Your task to perform on an android device: Go to ESPN.com Image 0: 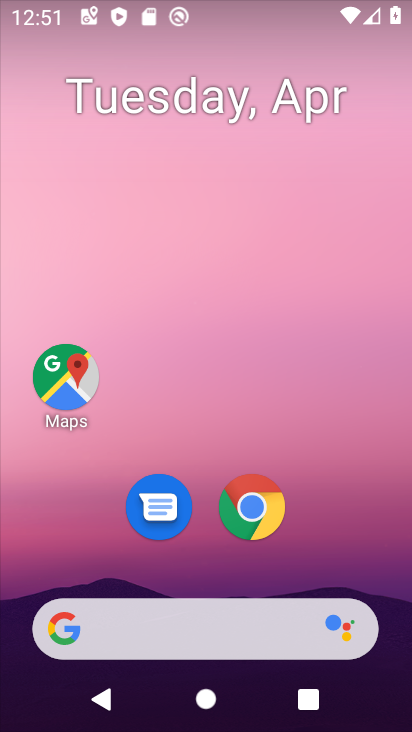
Step 0: click (254, 501)
Your task to perform on an android device: Go to ESPN.com Image 1: 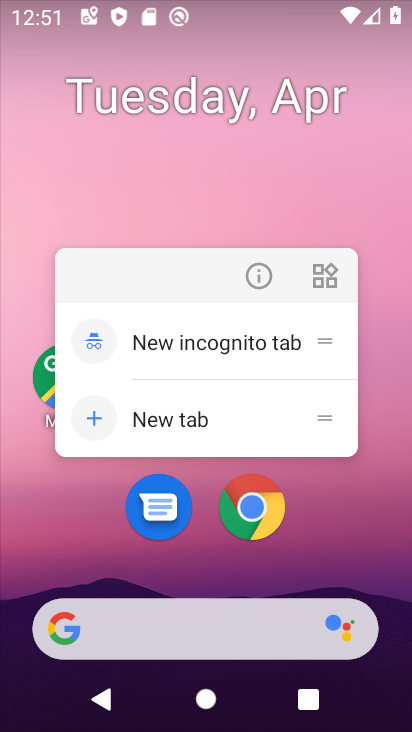
Step 1: click (253, 480)
Your task to perform on an android device: Go to ESPN.com Image 2: 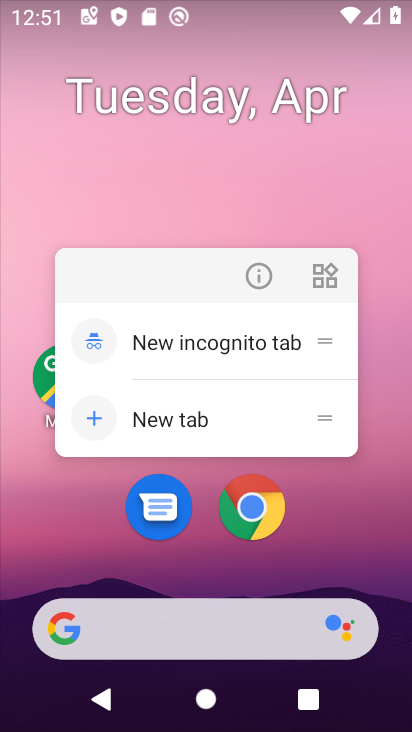
Step 2: click (239, 510)
Your task to perform on an android device: Go to ESPN.com Image 3: 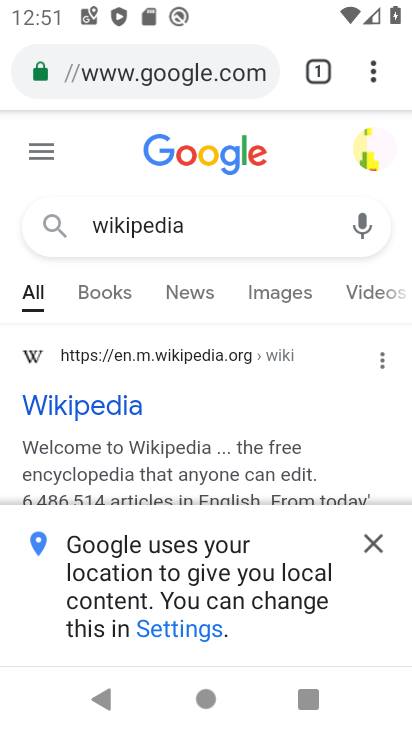
Step 3: click (209, 77)
Your task to perform on an android device: Go to ESPN.com Image 4: 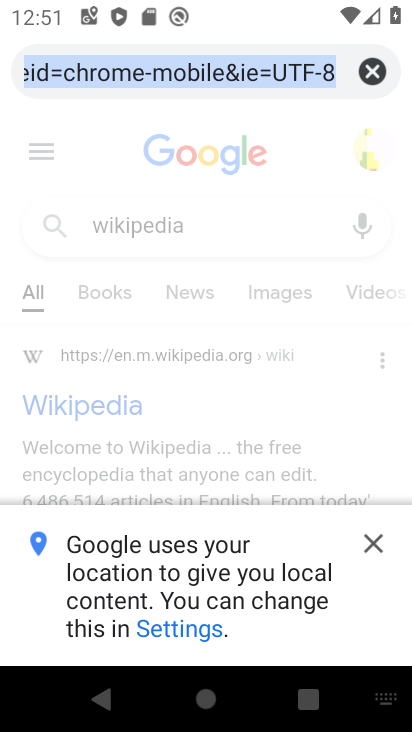
Step 4: type "ESPN.com"
Your task to perform on an android device: Go to ESPN.com Image 5: 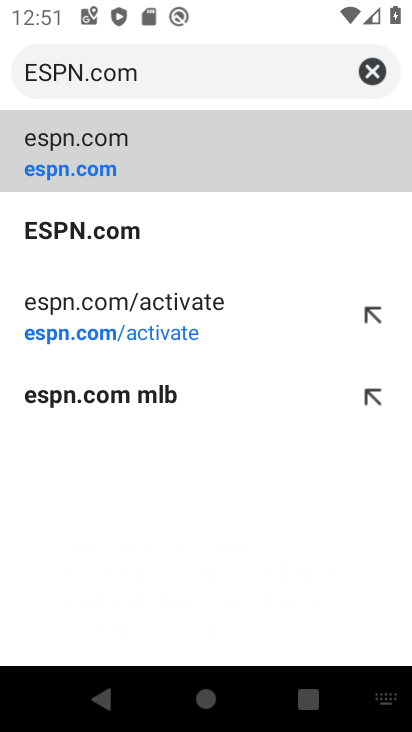
Step 5: click (254, 163)
Your task to perform on an android device: Go to ESPN.com Image 6: 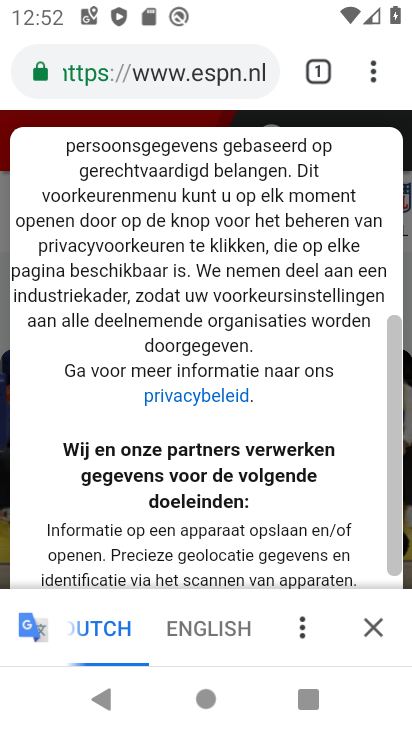
Step 6: task complete